Your task to perform on an android device: move an email to a new category in the gmail app Image 0: 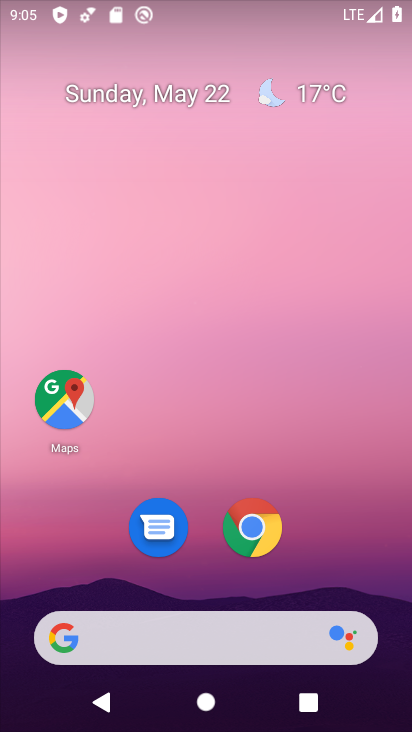
Step 0: drag from (343, 549) to (255, 62)
Your task to perform on an android device: move an email to a new category in the gmail app Image 1: 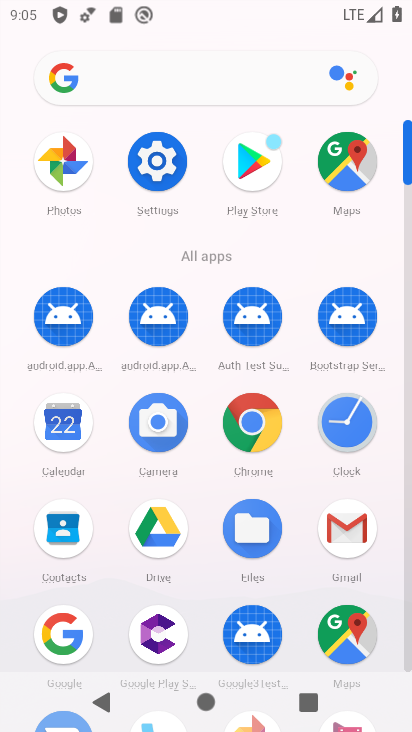
Step 1: click (342, 541)
Your task to perform on an android device: move an email to a new category in the gmail app Image 2: 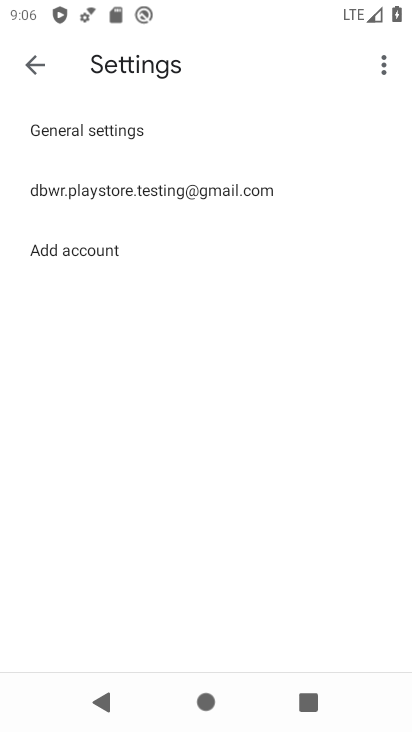
Step 2: click (41, 65)
Your task to perform on an android device: move an email to a new category in the gmail app Image 3: 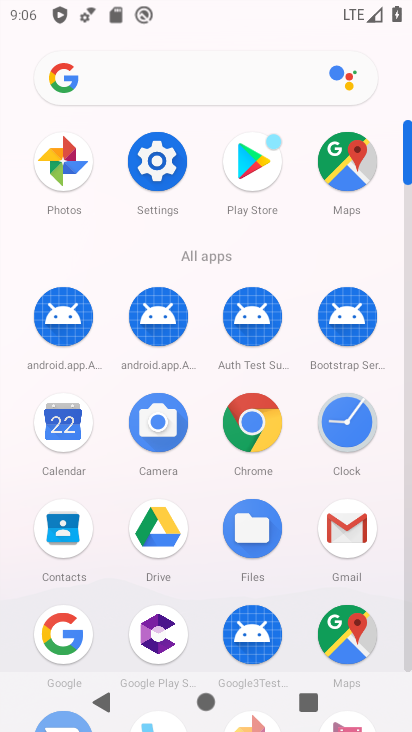
Step 3: click (344, 526)
Your task to perform on an android device: move an email to a new category in the gmail app Image 4: 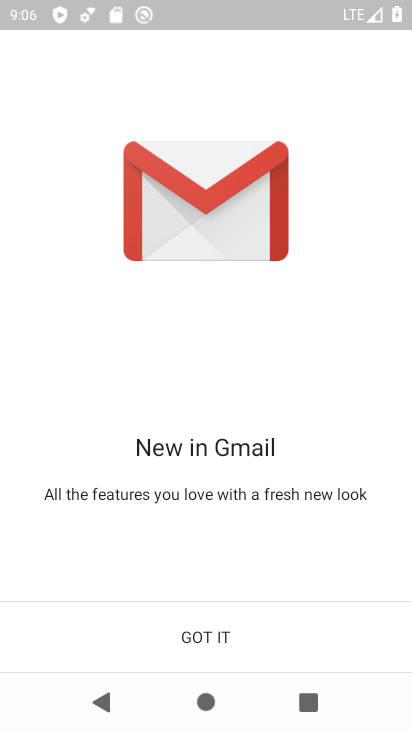
Step 4: click (202, 631)
Your task to perform on an android device: move an email to a new category in the gmail app Image 5: 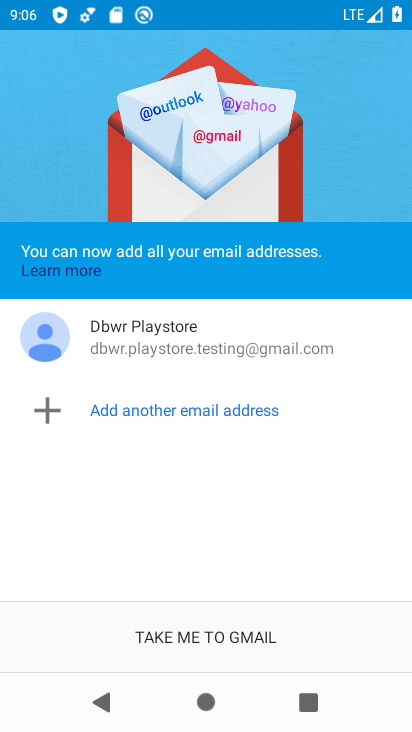
Step 5: click (202, 631)
Your task to perform on an android device: move an email to a new category in the gmail app Image 6: 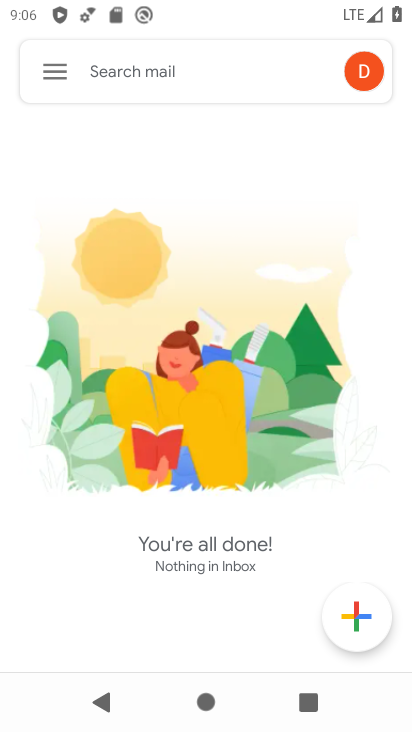
Step 6: click (57, 63)
Your task to perform on an android device: move an email to a new category in the gmail app Image 7: 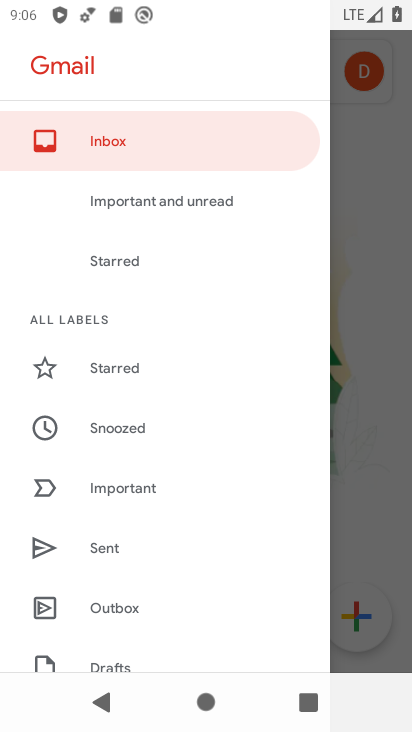
Step 7: drag from (206, 586) to (176, 180)
Your task to perform on an android device: move an email to a new category in the gmail app Image 8: 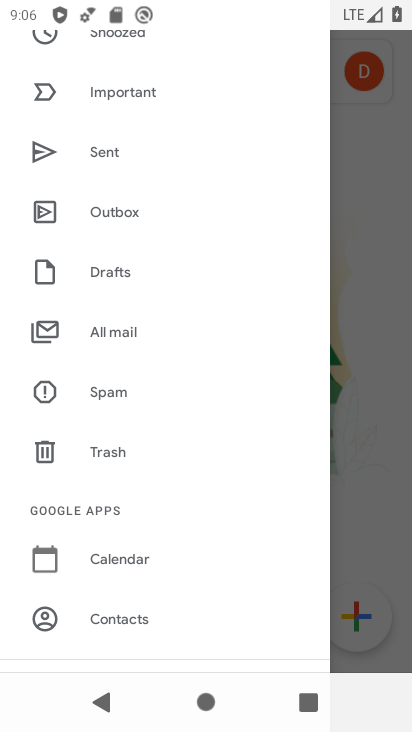
Step 8: click (109, 326)
Your task to perform on an android device: move an email to a new category in the gmail app Image 9: 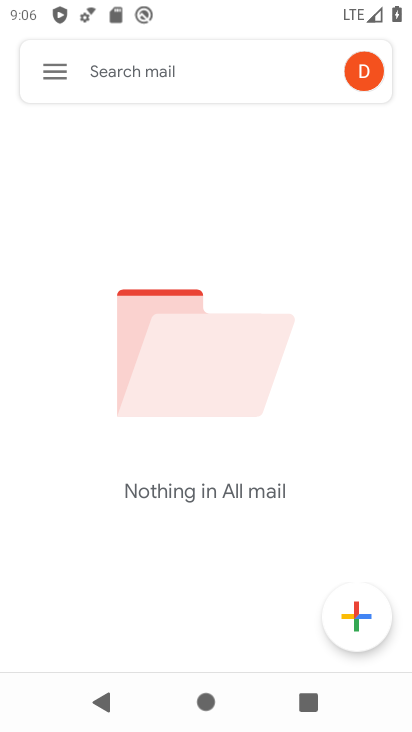
Step 9: task complete